Your task to perform on an android device: What time is it in Tokyo? Image 0: 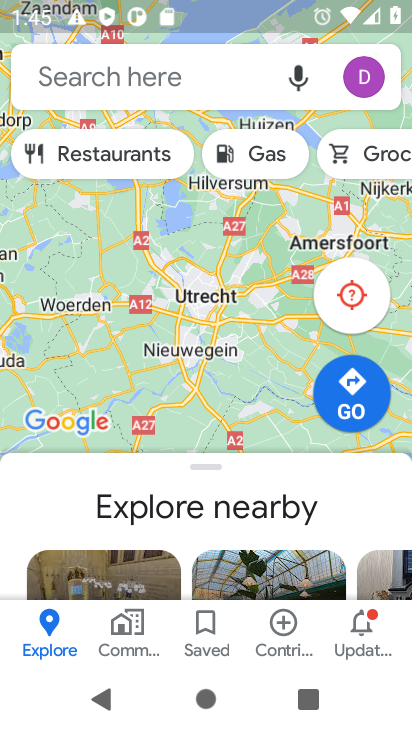
Step 0: press home button
Your task to perform on an android device: What time is it in Tokyo? Image 1: 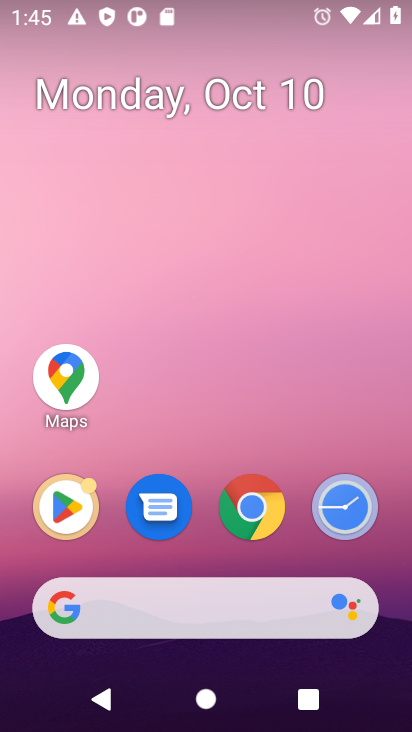
Step 1: click (257, 604)
Your task to perform on an android device: What time is it in Tokyo? Image 2: 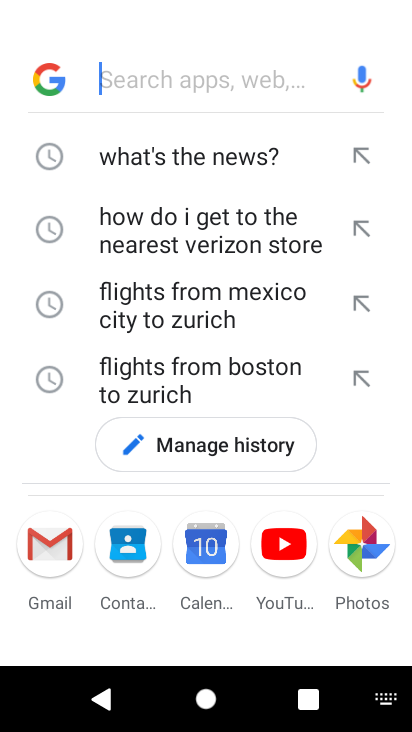
Step 2: type "What time is it in Tokyo"
Your task to perform on an android device: What time is it in Tokyo? Image 3: 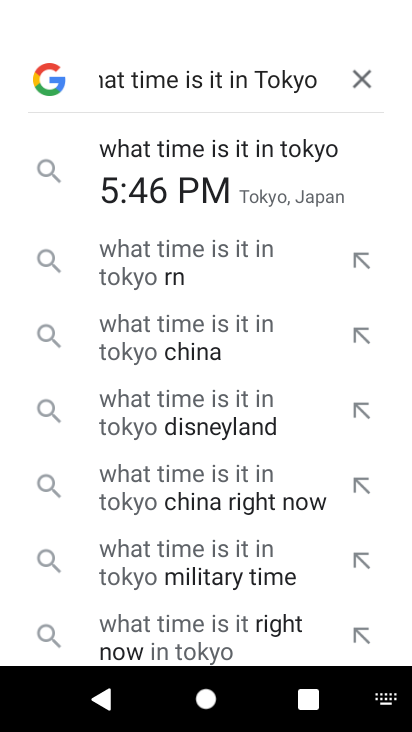
Step 3: press enter
Your task to perform on an android device: What time is it in Tokyo? Image 4: 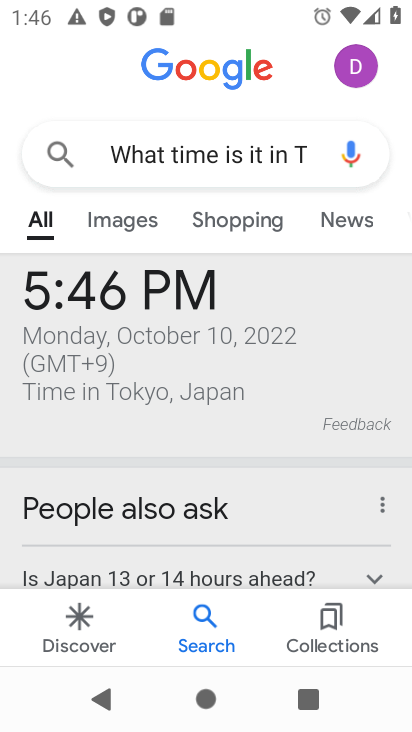
Step 4: task complete